Your task to perform on an android device: clear history in the chrome app Image 0: 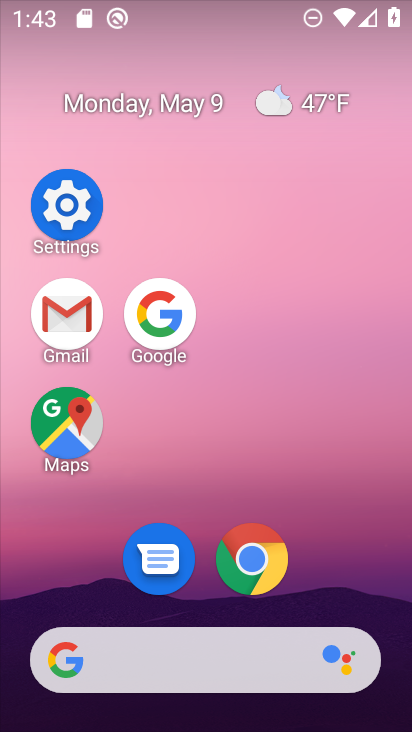
Step 0: click (251, 569)
Your task to perform on an android device: clear history in the chrome app Image 1: 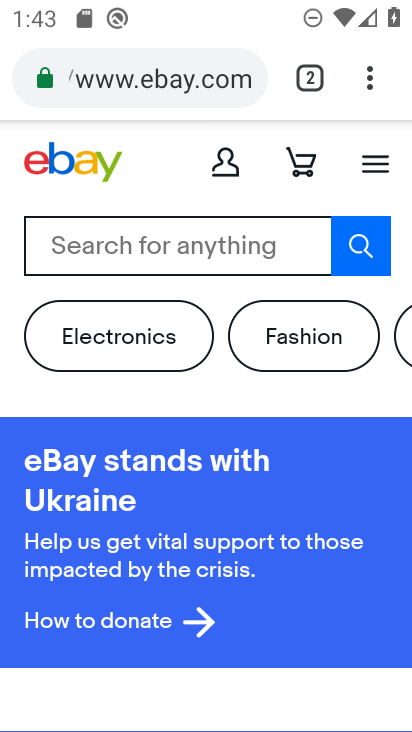
Step 1: click (366, 66)
Your task to perform on an android device: clear history in the chrome app Image 2: 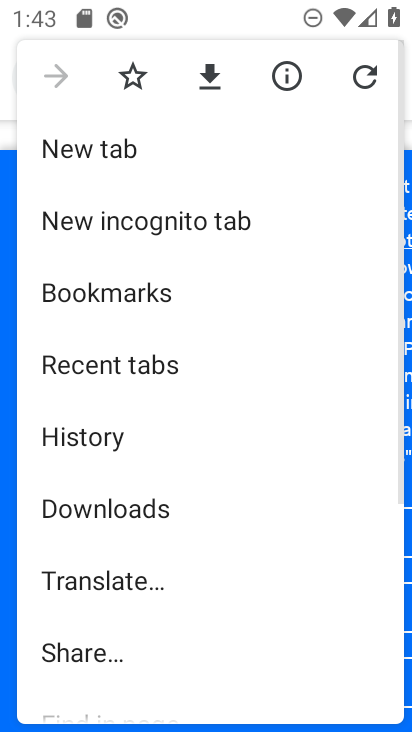
Step 2: drag from (261, 515) to (287, 309)
Your task to perform on an android device: clear history in the chrome app Image 3: 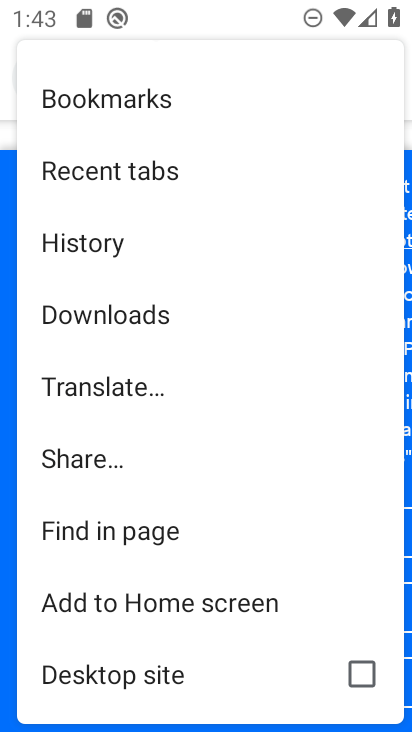
Step 3: click (117, 250)
Your task to perform on an android device: clear history in the chrome app Image 4: 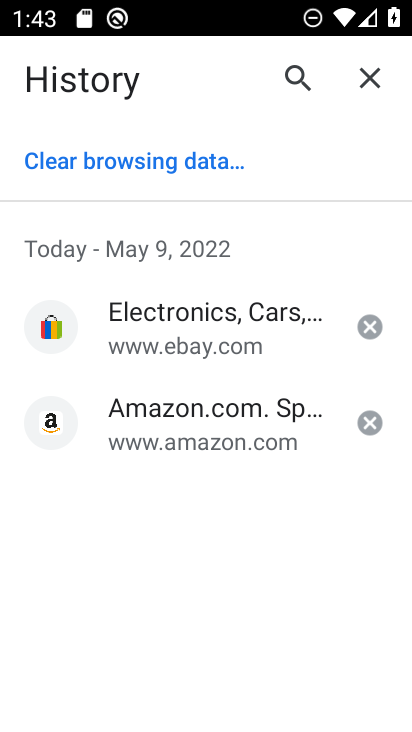
Step 4: click (148, 158)
Your task to perform on an android device: clear history in the chrome app Image 5: 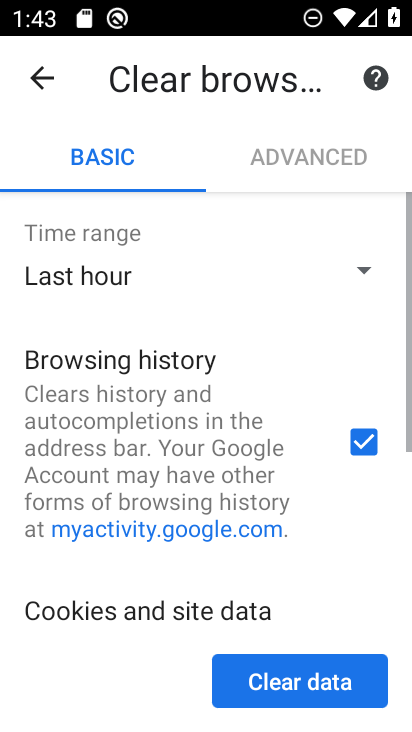
Step 5: click (297, 279)
Your task to perform on an android device: clear history in the chrome app Image 6: 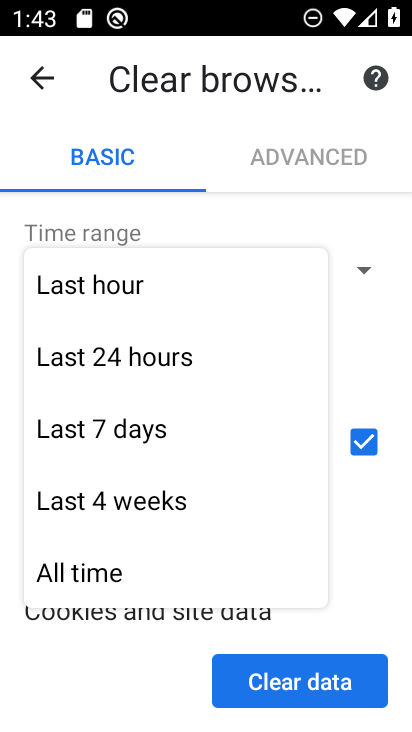
Step 6: click (120, 571)
Your task to perform on an android device: clear history in the chrome app Image 7: 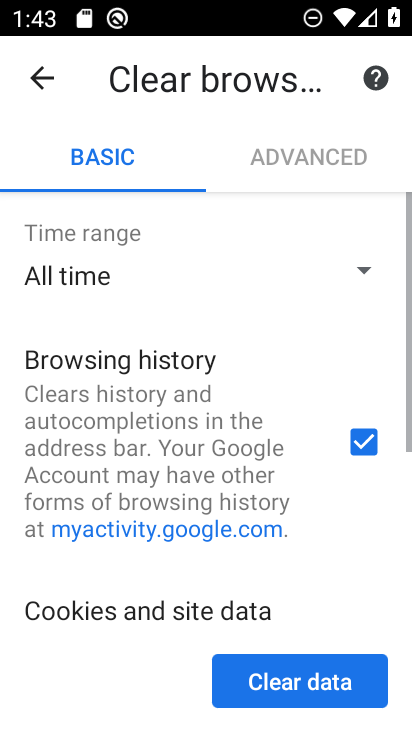
Step 7: click (337, 676)
Your task to perform on an android device: clear history in the chrome app Image 8: 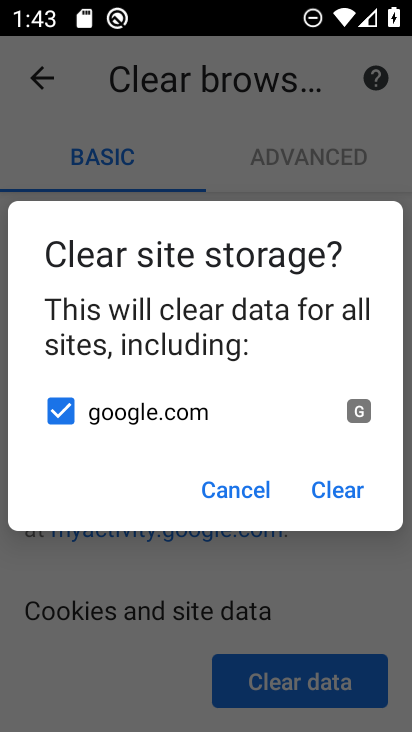
Step 8: click (316, 504)
Your task to perform on an android device: clear history in the chrome app Image 9: 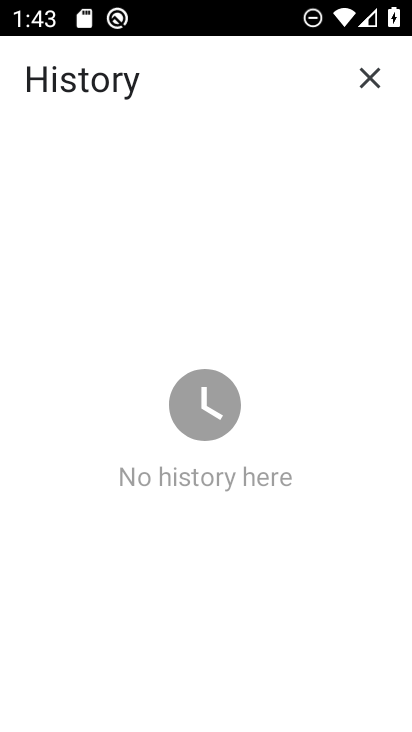
Step 9: task complete